Your task to perform on an android device: delete location history Image 0: 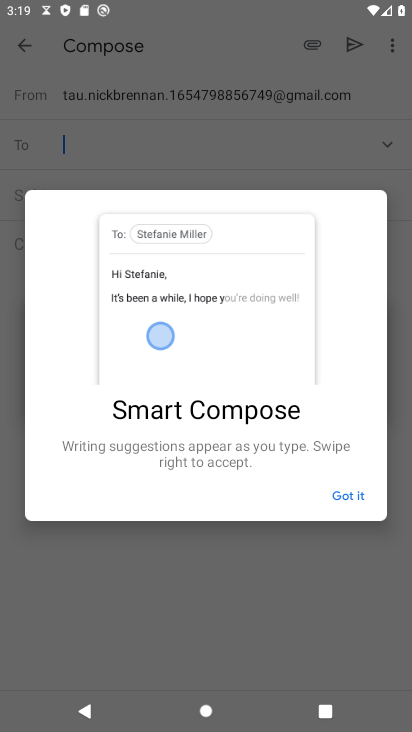
Step 0: press home button
Your task to perform on an android device: delete location history Image 1: 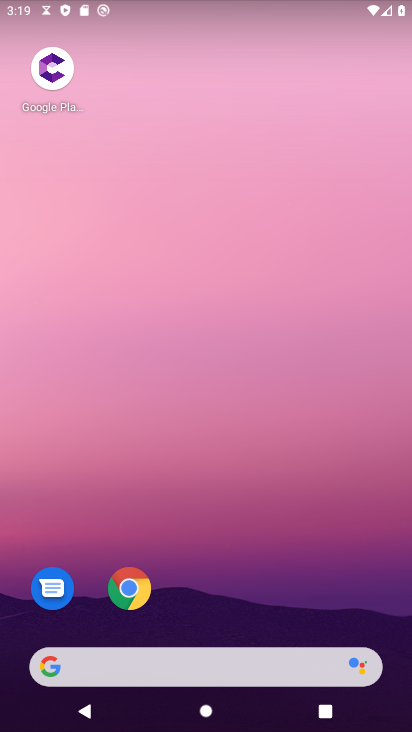
Step 1: click (201, 18)
Your task to perform on an android device: delete location history Image 2: 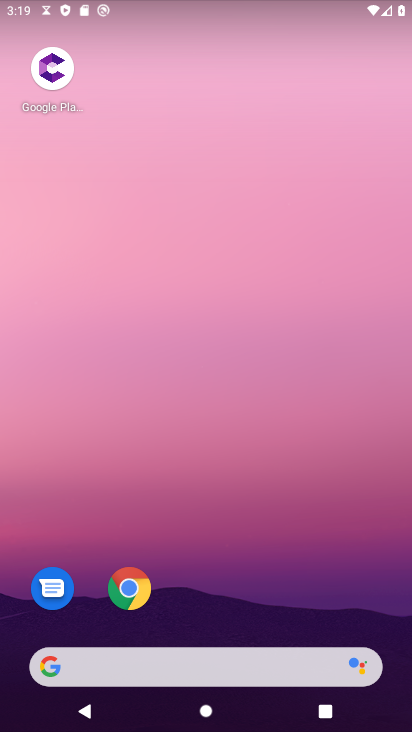
Step 2: drag from (280, 603) to (292, 38)
Your task to perform on an android device: delete location history Image 3: 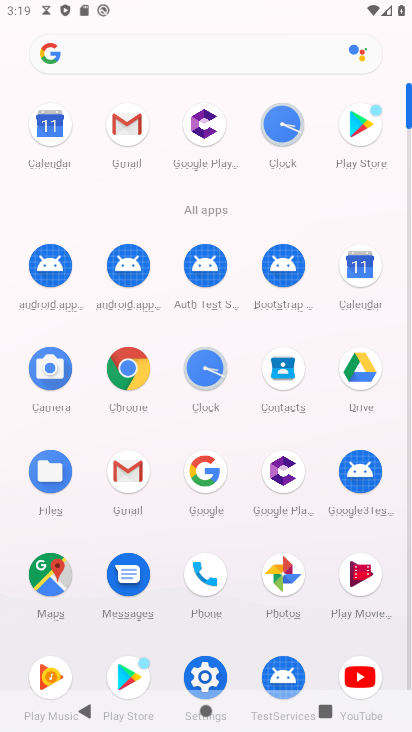
Step 3: click (38, 577)
Your task to perform on an android device: delete location history Image 4: 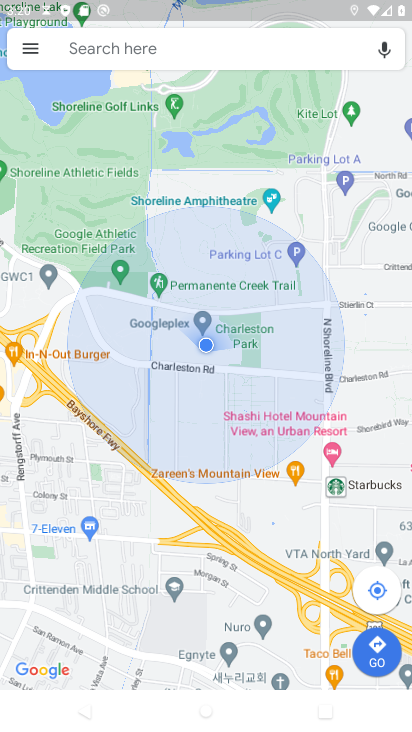
Step 4: click (30, 47)
Your task to perform on an android device: delete location history Image 5: 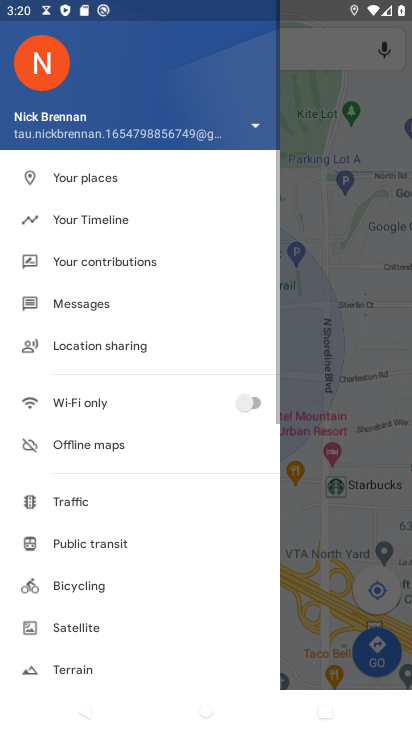
Step 5: click (90, 211)
Your task to perform on an android device: delete location history Image 6: 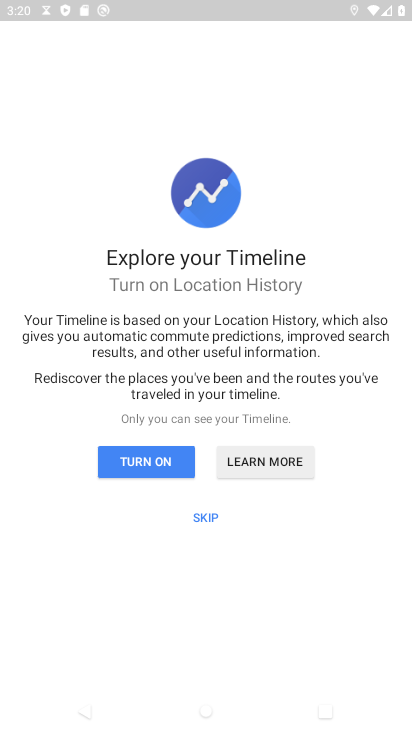
Step 6: click (208, 515)
Your task to perform on an android device: delete location history Image 7: 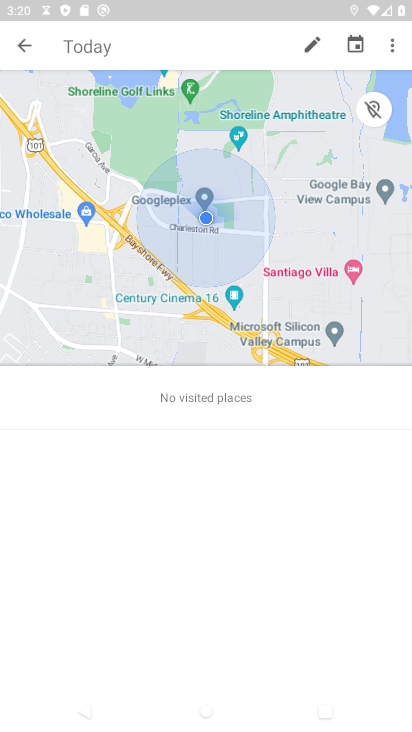
Step 7: click (398, 54)
Your task to perform on an android device: delete location history Image 8: 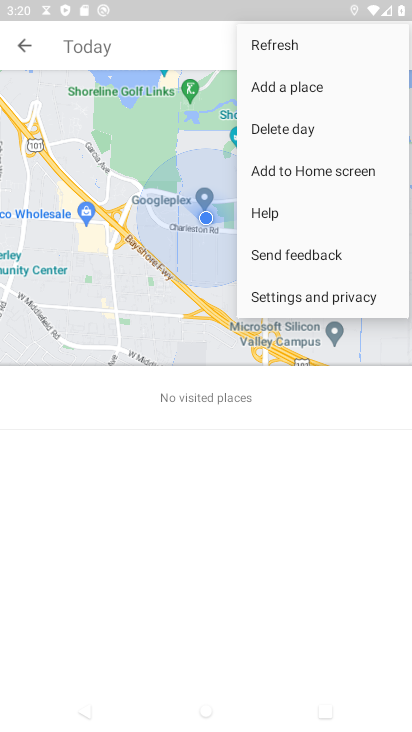
Step 8: click (283, 293)
Your task to perform on an android device: delete location history Image 9: 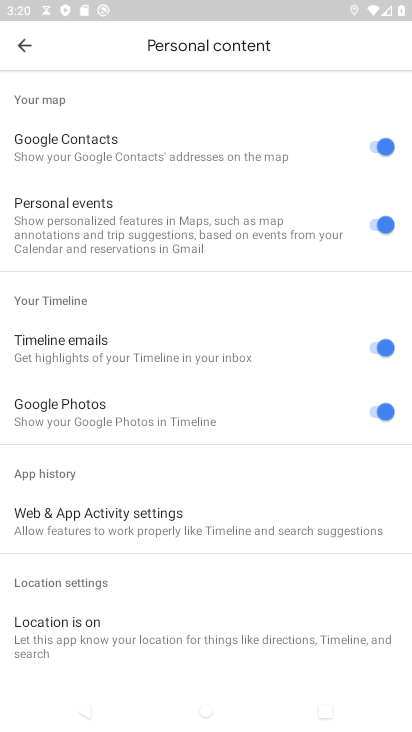
Step 9: drag from (184, 579) to (223, 183)
Your task to perform on an android device: delete location history Image 10: 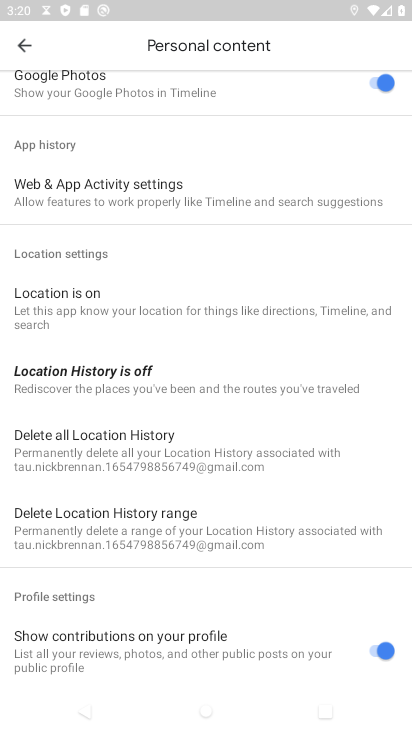
Step 10: click (127, 431)
Your task to perform on an android device: delete location history Image 11: 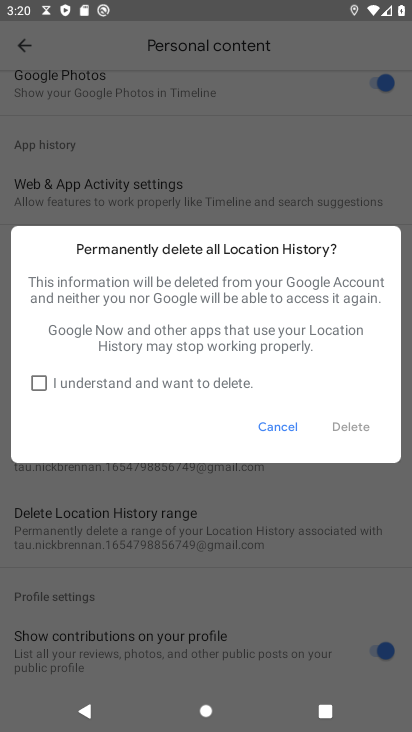
Step 11: click (139, 388)
Your task to perform on an android device: delete location history Image 12: 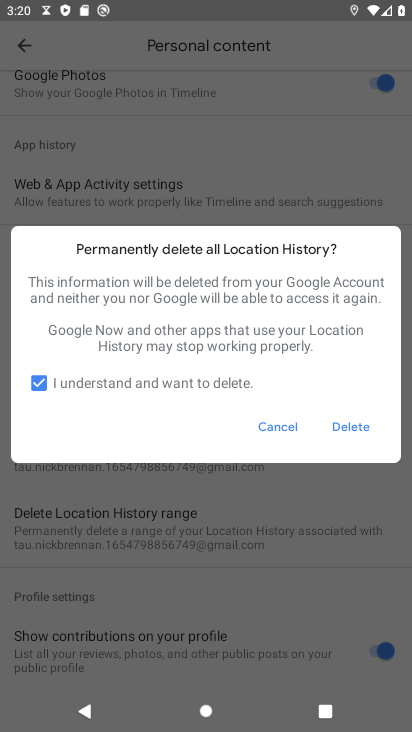
Step 12: click (342, 429)
Your task to perform on an android device: delete location history Image 13: 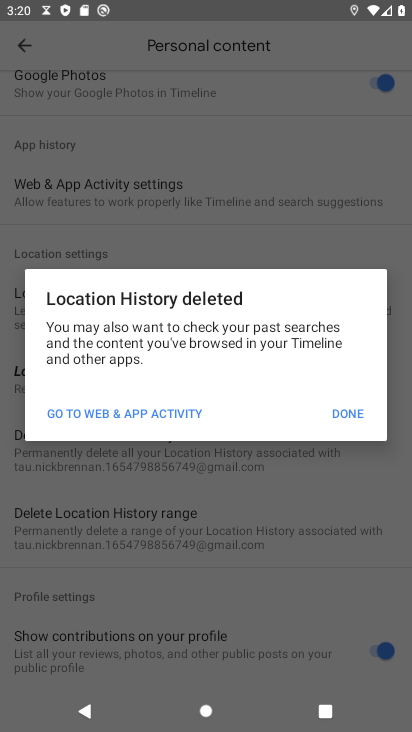
Step 13: click (336, 410)
Your task to perform on an android device: delete location history Image 14: 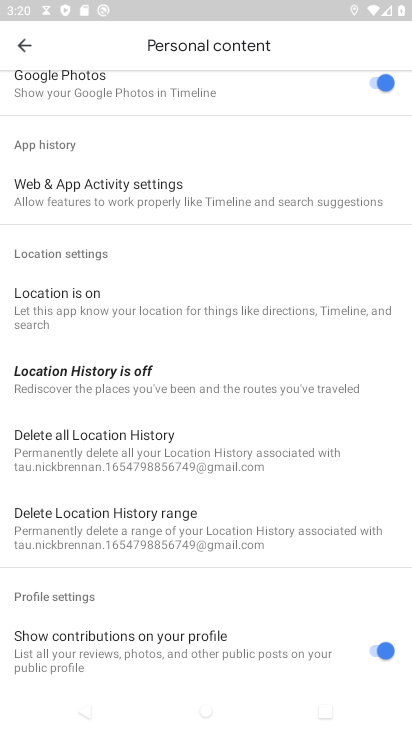
Step 14: task complete